Your task to perform on an android device: toggle location history Image 0: 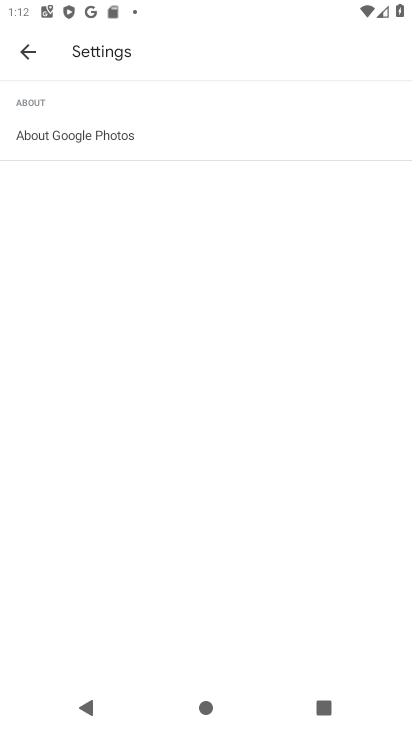
Step 0: press home button
Your task to perform on an android device: toggle location history Image 1: 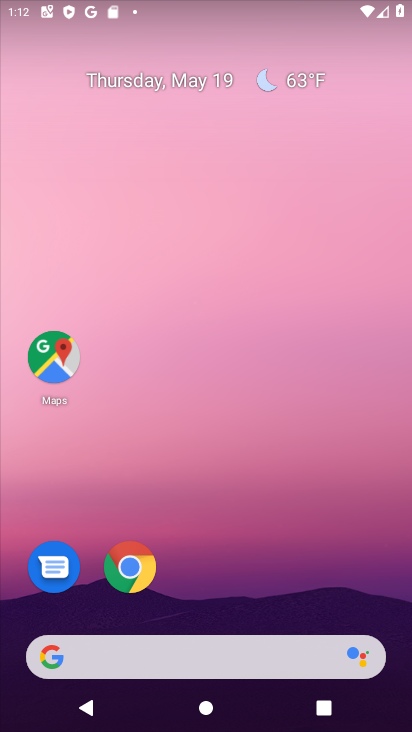
Step 1: drag from (273, 602) to (240, 129)
Your task to perform on an android device: toggle location history Image 2: 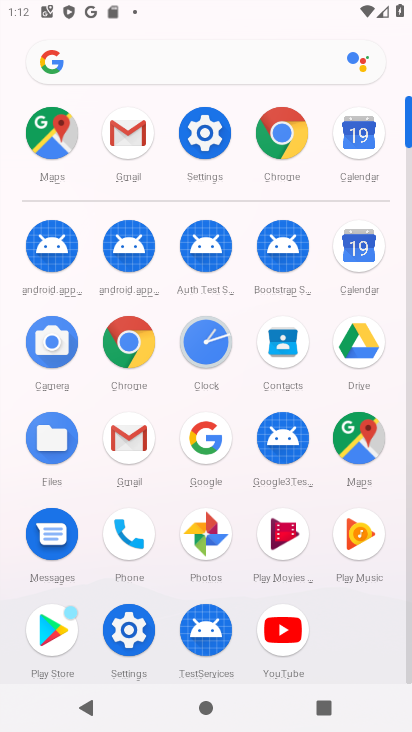
Step 2: click (200, 134)
Your task to perform on an android device: toggle location history Image 3: 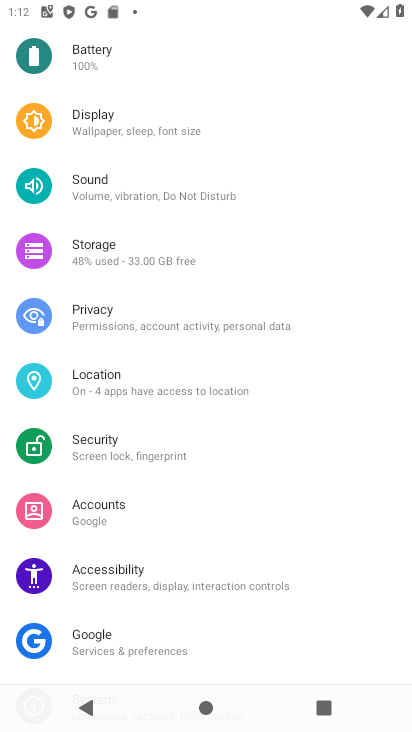
Step 3: click (179, 393)
Your task to perform on an android device: toggle location history Image 4: 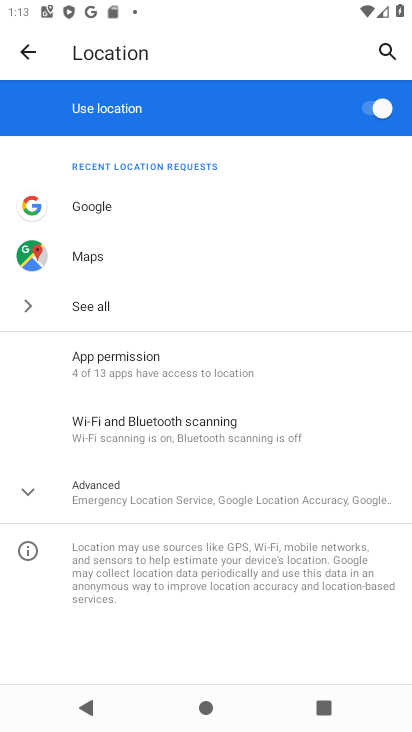
Step 4: click (368, 118)
Your task to perform on an android device: toggle location history Image 5: 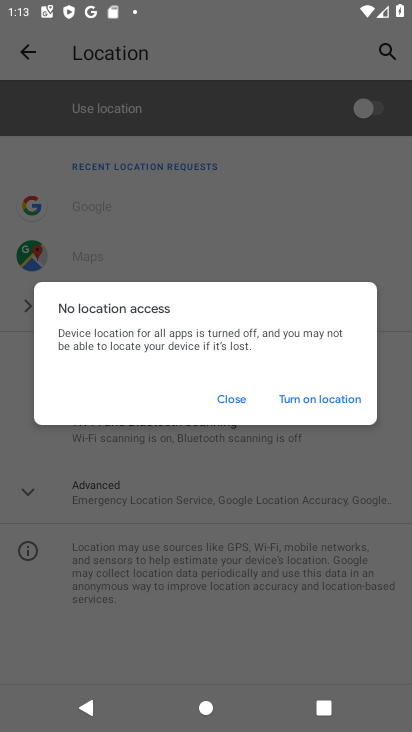
Step 5: task complete